Your task to perform on an android device: Open Google Maps and go to "Timeline" Image 0: 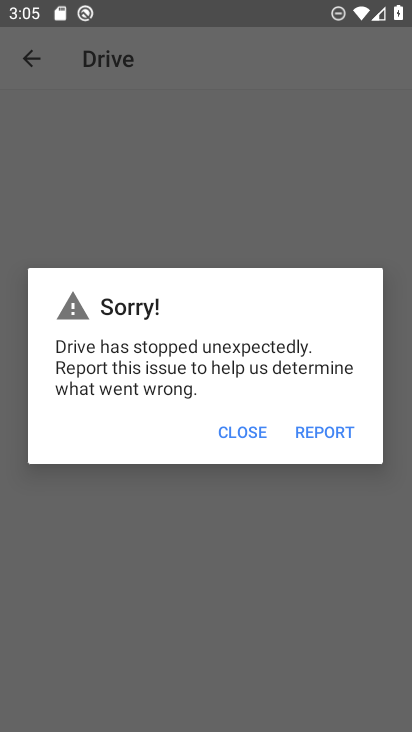
Step 0: press home button
Your task to perform on an android device: Open Google Maps and go to "Timeline" Image 1: 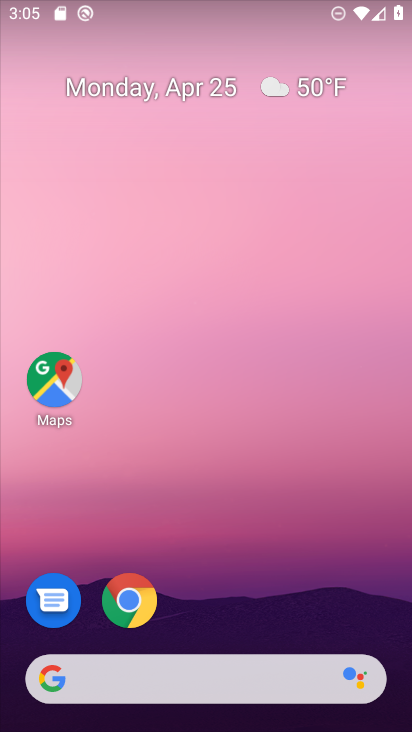
Step 1: drag from (187, 180) to (404, 217)
Your task to perform on an android device: Open Google Maps and go to "Timeline" Image 2: 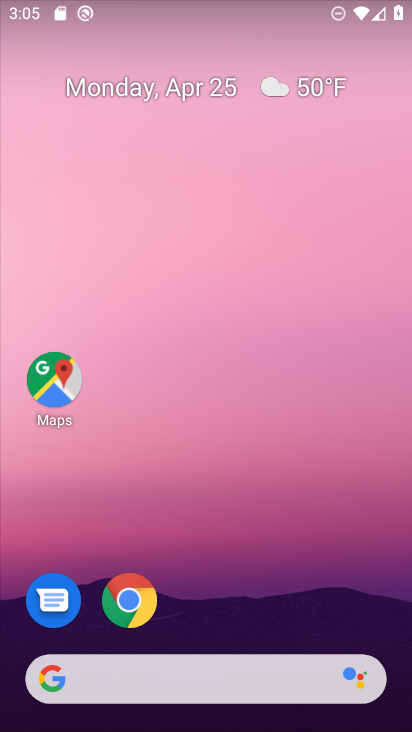
Step 2: drag from (210, 646) to (382, 464)
Your task to perform on an android device: Open Google Maps and go to "Timeline" Image 3: 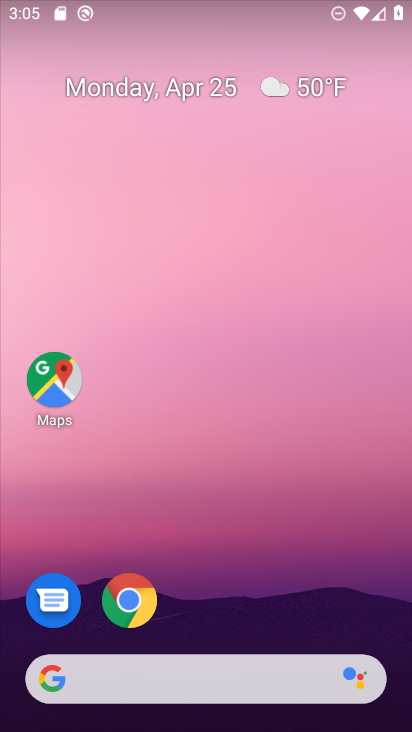
Step 3: drag from (209, 651) to (133, 90)
Your task to perform on an android device: Open Google Maps and go to "Timeline" Image 4: 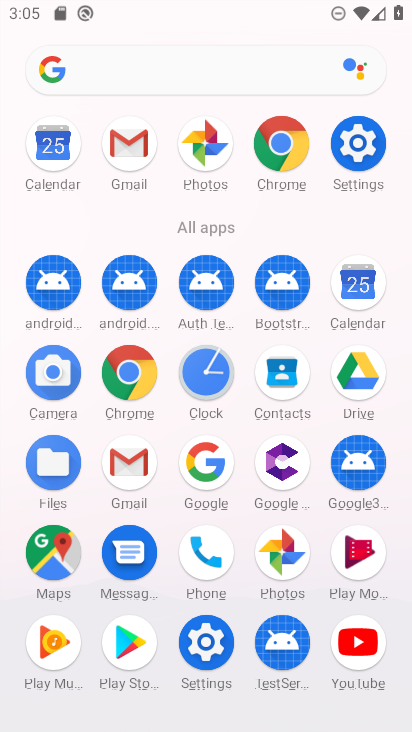
Step 4: click (46, 544)
Your task to perform on an android device: Open Google Maps and go to "Timeline" Image 5: 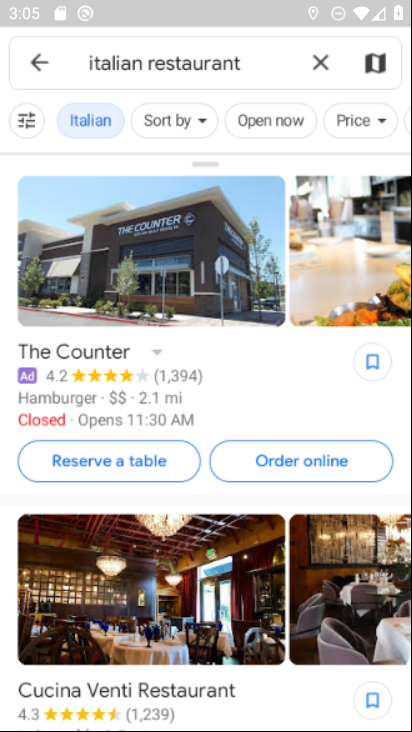
Step 5: click (50, 54)
Your task to perform on an android device: Open Google Maps and go to "Timeline" Image 6: 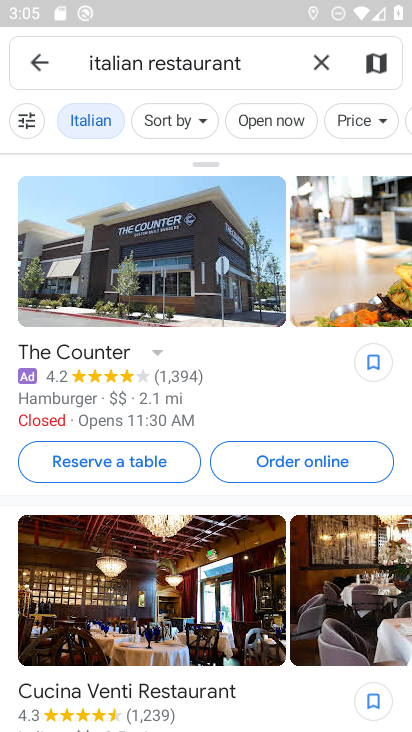
Step 6: click (40, 60)
Your task to perform on an android device: Open Google Maps and go to "Timeline" Image 7: 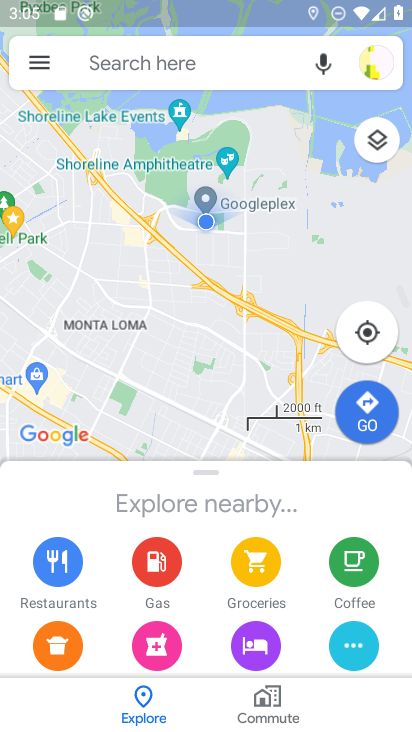
Step 7: click (50, 60)
Your task to perform on an android device: Open Google Maps and go to "Timeline" Image 8: 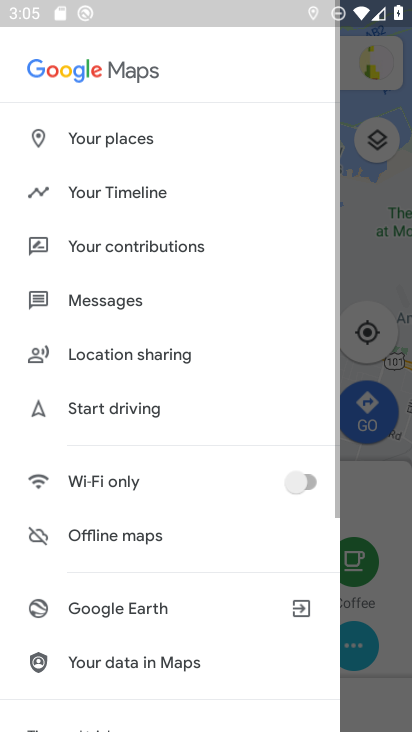
Step 8: click (126, 189)
Your task to perform on an android device: Open Google Maps and go to "Timeline" Image 9: 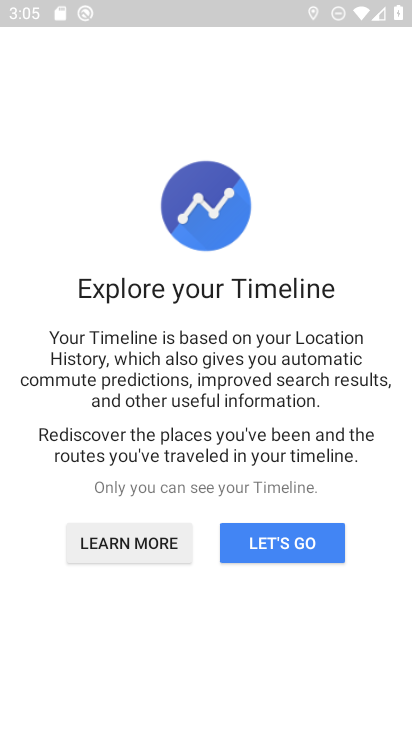
Step 9: click (295, 540)
Your task to perform on an android device: Open Google Maps and go to "Timeline" Image 10: 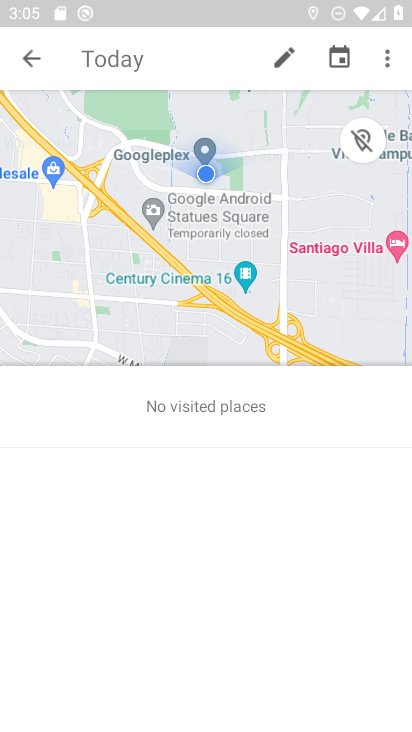
Step 10: task complete